Your task to perform on an android device: Go to Reddit.com Image 0: 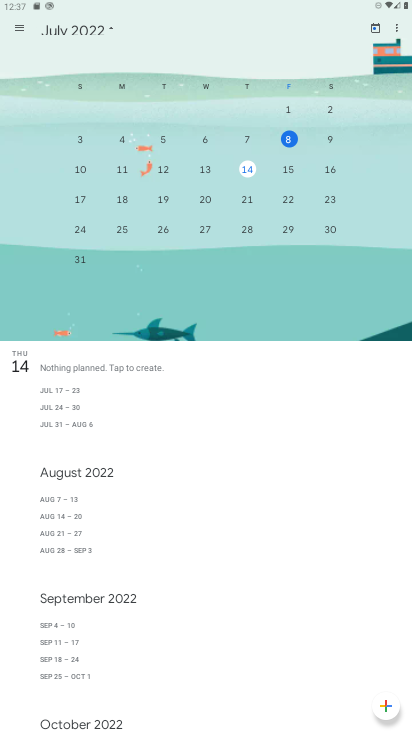
Step 0: press home button
Your task to perform on an android device: Go to Reddit.com Image 1: 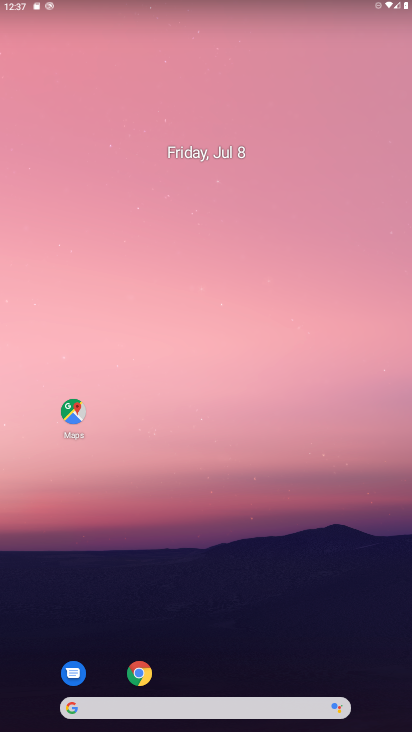
Step 1: click (140, 670)
Your task to perform on an android device: Go to Reddit.com Image 2: 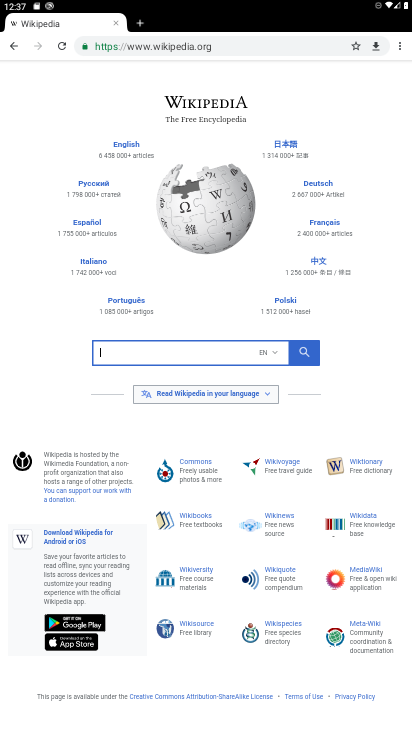
Step 2: click (334, 41)
Your task to perform on an android device: Go to Reddit.com Image 3: 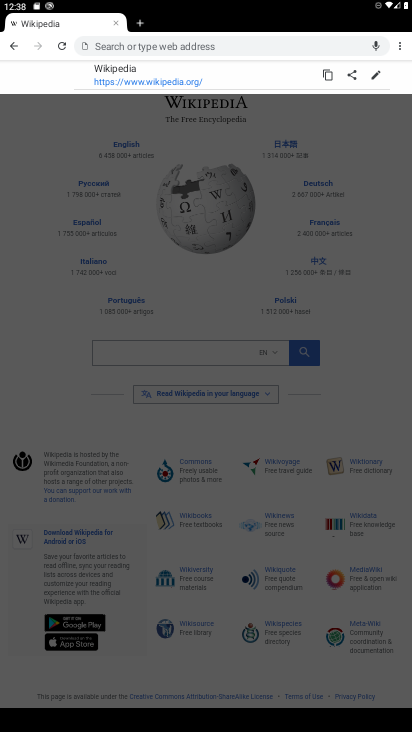
Step 3: type "Reddit.com"
Your task to perform on an android device: Go to Reddit.com Image 4: 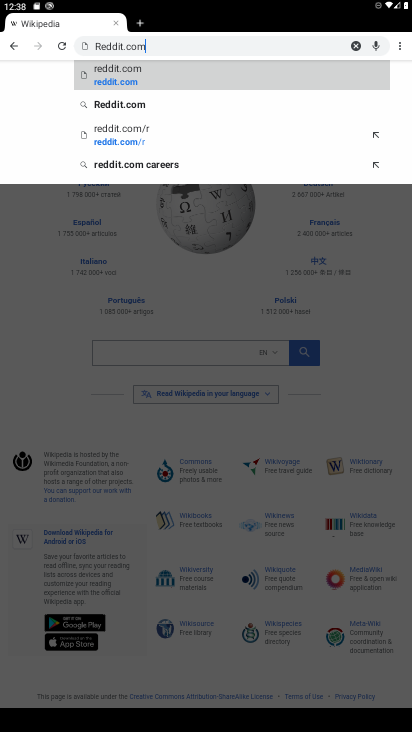
Step 4: click (134, 95)
Your task to perform on an android device: Go to Reddit.com Image 5: 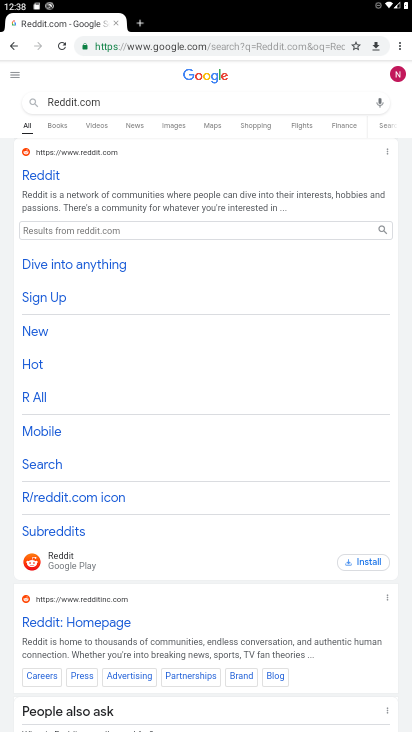
Step 5: task complete